Your task to perform on an android device: Open Google Maps Image 0: 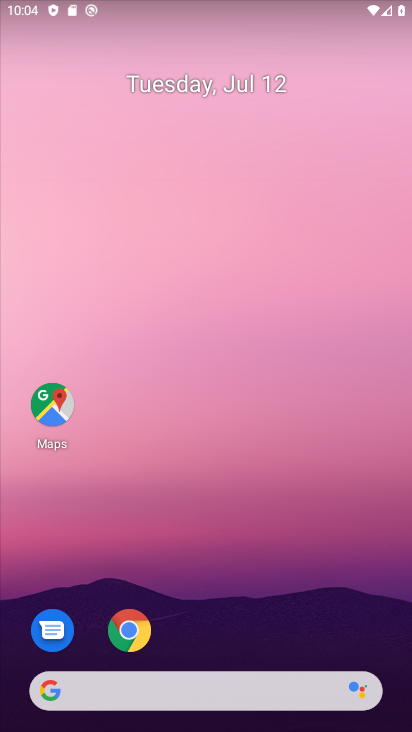
Step 0: click (47, 411)
Your task to perform on an android device: Open Google Maps Image 1: 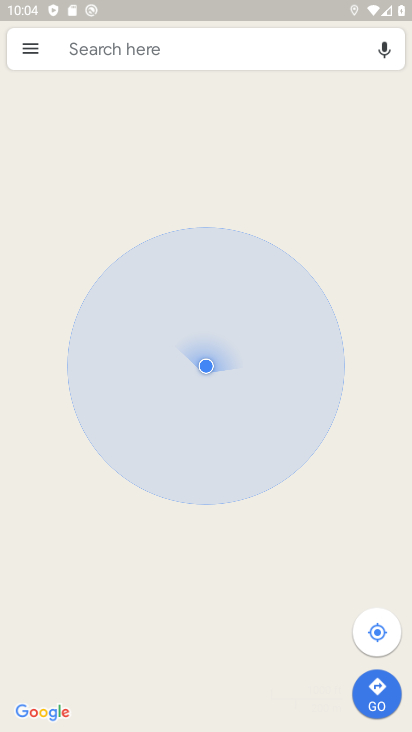
Step 1: task complete